Your task to perform on an android device: Is it going to rain this weekend? Image 0: 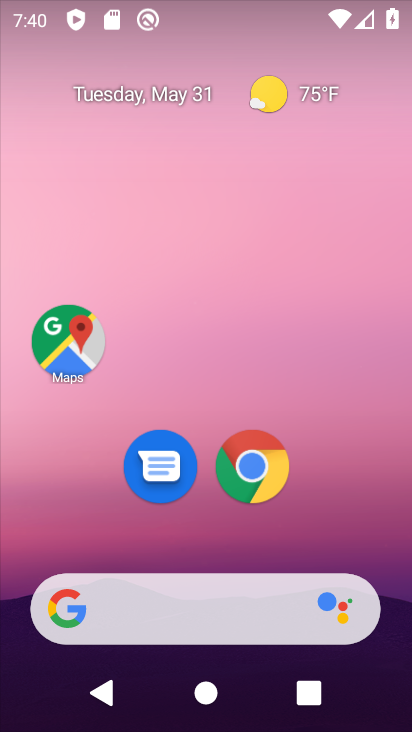
Step 0: drag from (210, 539) to (215, 150)
Your task to perform on an android device: Is it going to rain this weekend? Image 1: 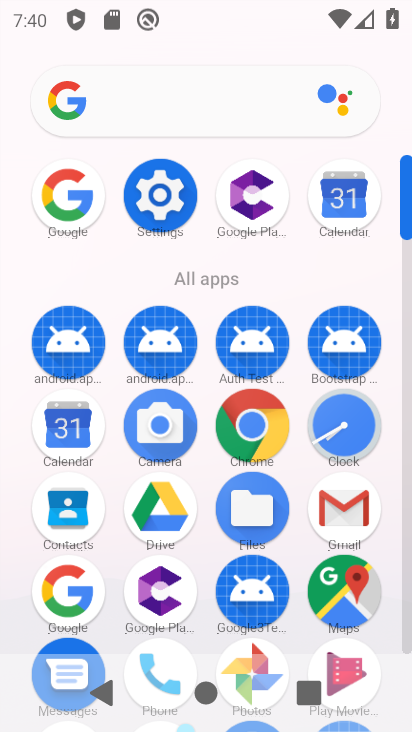
Step 1: click (150, 108)
Your task to perform on an android device: Is it going to rain this weekend? Image 2: 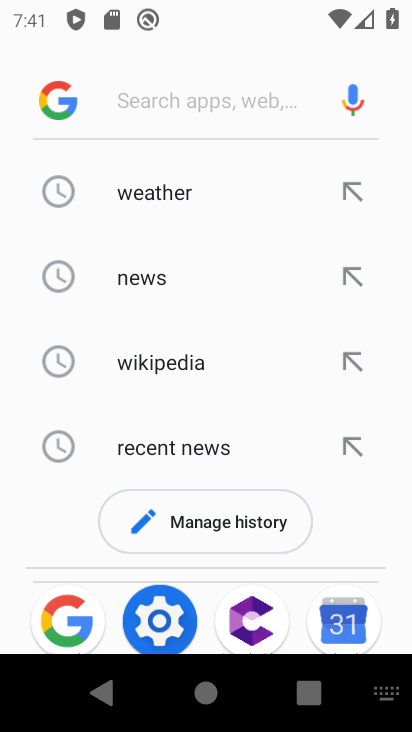
Step 2: type "rain this weekend?"
Your task to perform on an android device: Is it going to rain this weekend? Image 3: 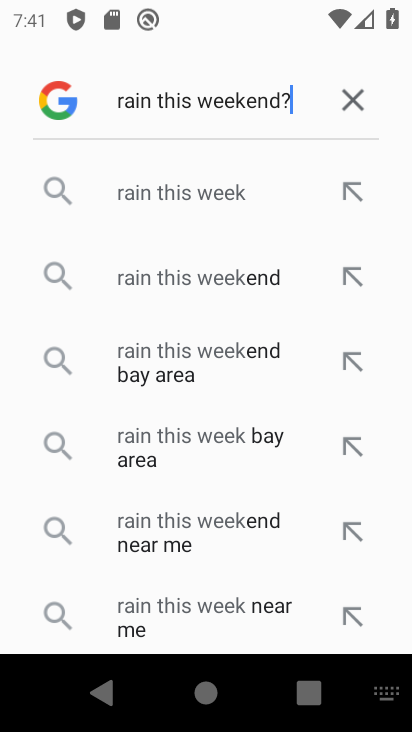
Step 3: type ""
Your task to perform on an android device: Is it going to rain this weekend? Image 4: 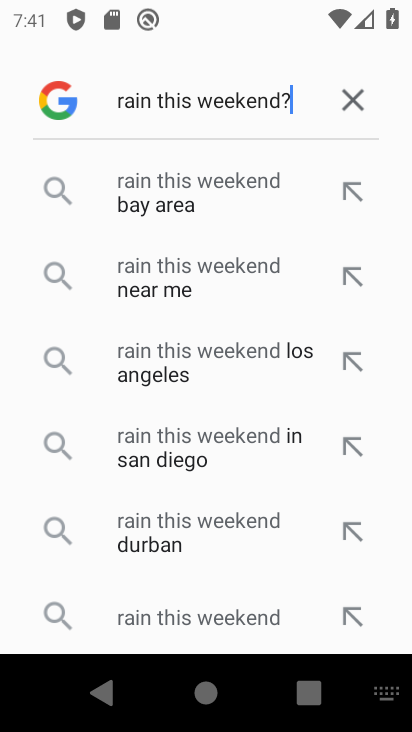
Step 4: click (113, 196)
Your task to perform on an android device: Is it going to rain this weekend? Image 5: 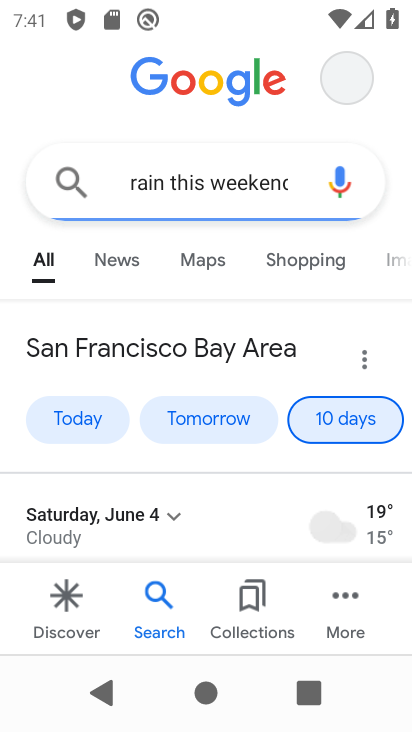
Step 5: task complete